Your task to perform on an android device: Show the shopping cart on ebay. Search for macbook on ebay, select the first entry, and add it to the cart. Image 0: 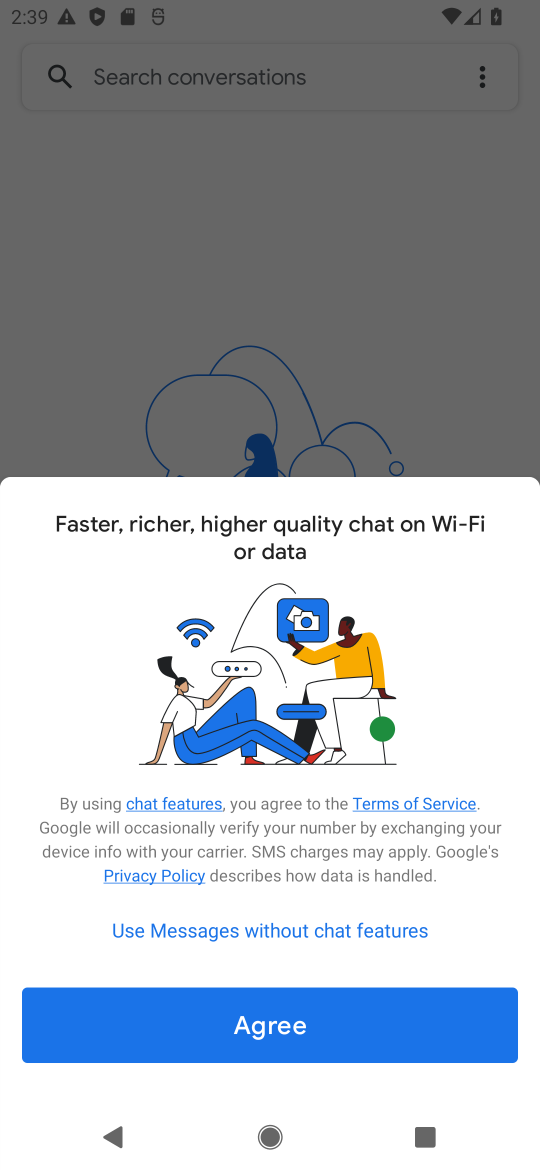
Step 0: press home button
Your task to perform on an android device: Show the shopping cart on ebay. Search for macbook on ebay, select the first entry, and add it to the cart. Image 1: 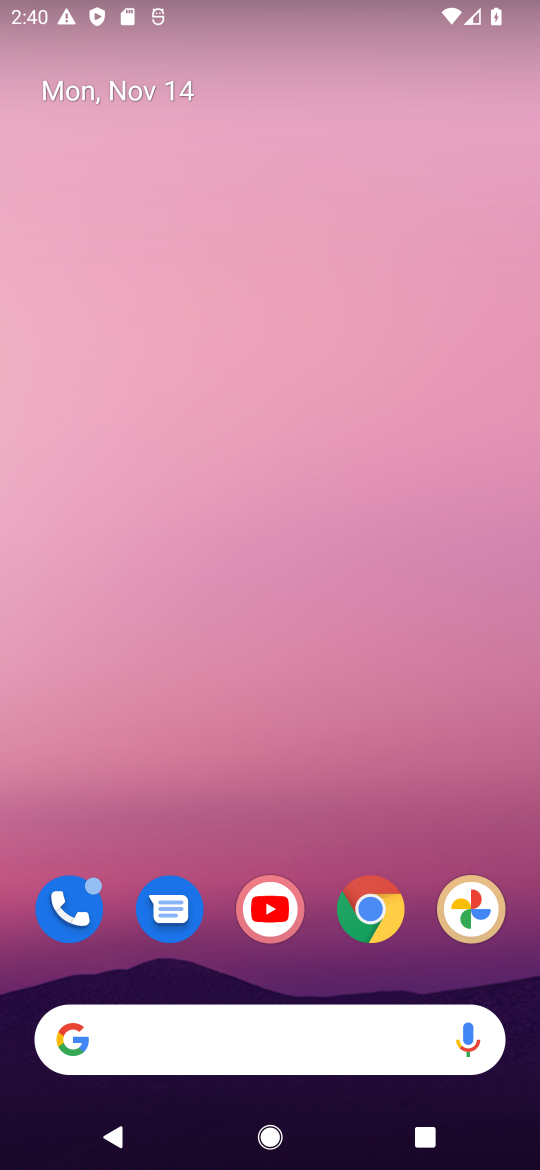
Step 1: drag from (356, 985) to (224, 108)
Your task to perform on an android device: Show the shopping cart on ebay. Search for macbook on ebay, select the first entry, and add it to the cart. Image 2: 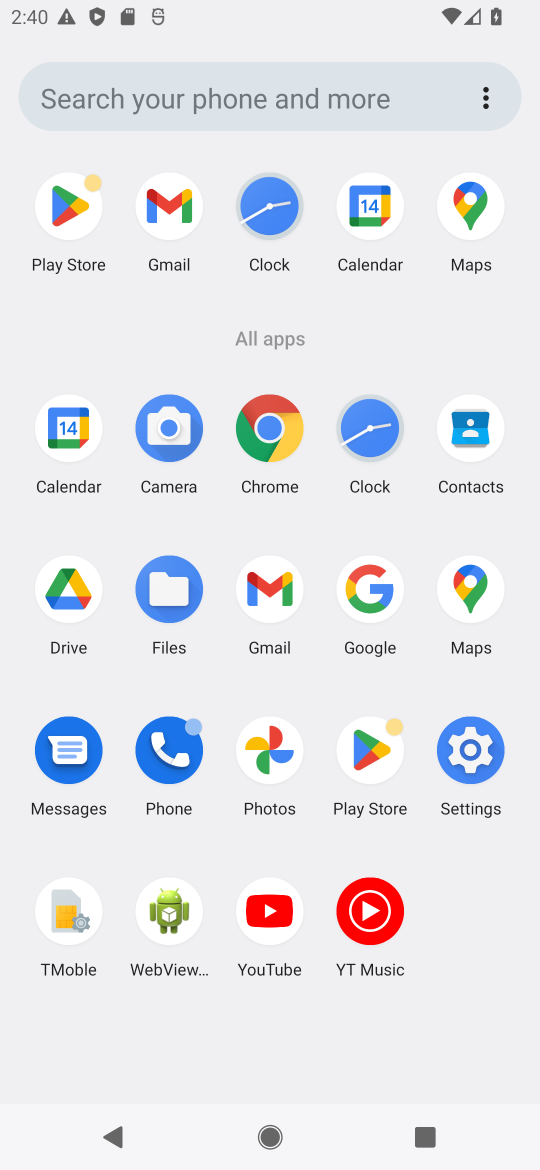
Step 2: click (271, 433)
Your task to perform on an android device: Show the shopping cart on ebay. Search for macbook on ebay, select the first entry, and add it to the cart. Image 3: 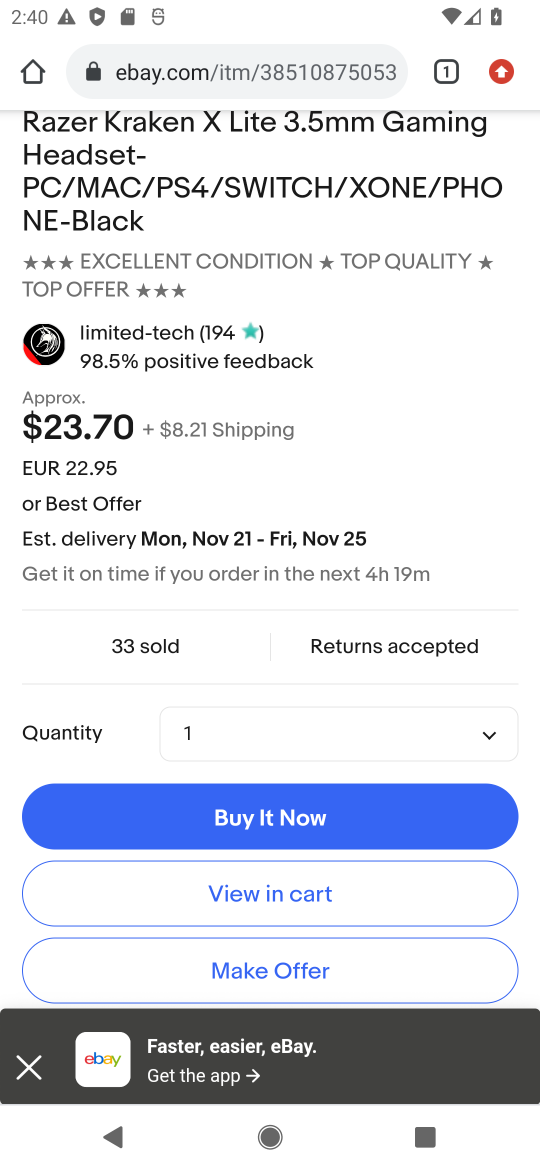
Step 3: click (214, 69)
Your task to perform on an android device: Show the shopping cart on ebay. Search for macbook on ebay, select the first entry, and add it to the cart. Image 4: 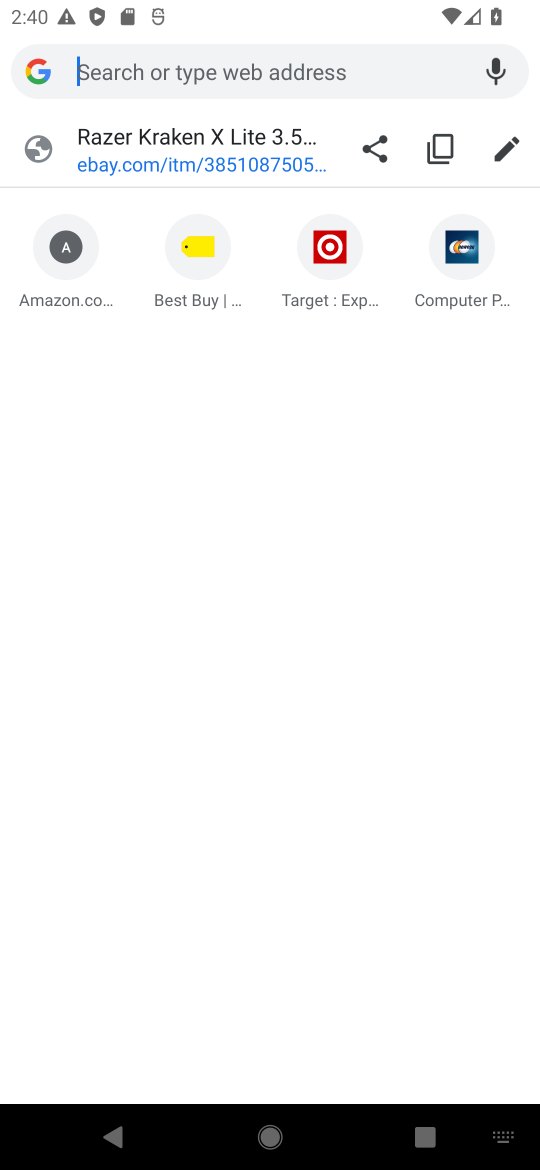
Step 4: type "ebay.com"
Your task to perform on an android device: Show the shopping cart on ebay. Search for macbook on ebay, select the first entry, and add it to the cart. Image 5: 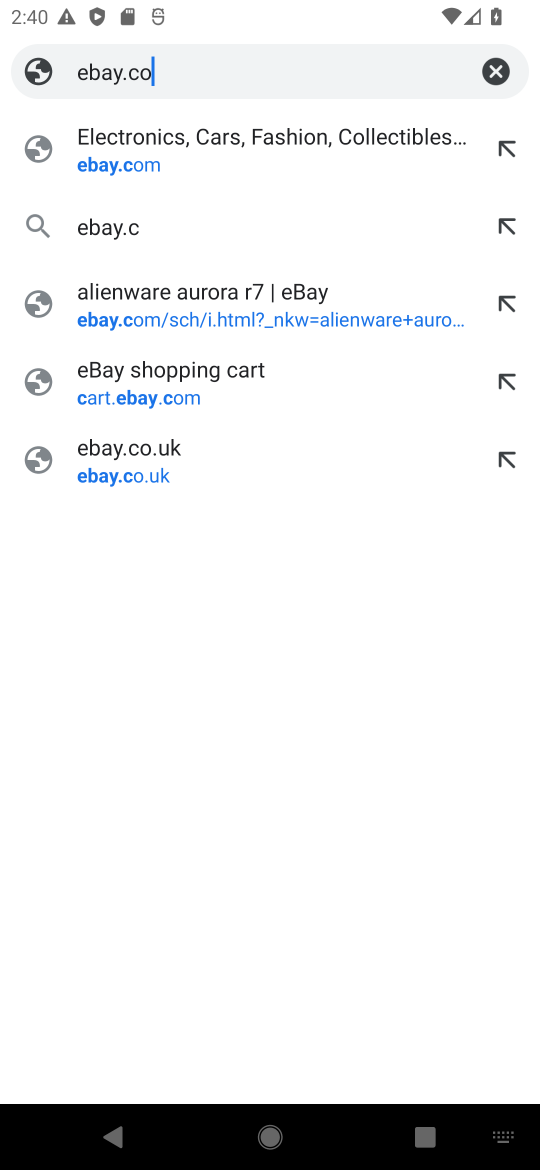
Step 5: press enter
Your task to perform on an android device: Show the shopping cart on ebay. Search for macbook on ebay, select the first entry, and add it to the cart. Image 6: 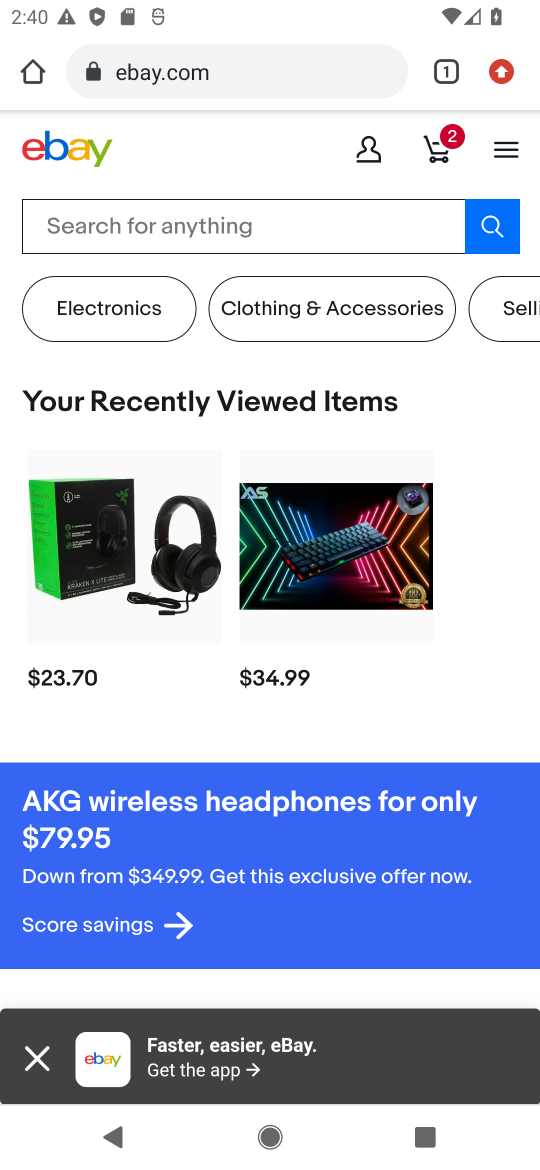
Step 6: click (457, 129)
Your task to perform on an android device: Show the shopping cart on ebay. Search for macbook on ebay, select the first entry, and add it to the cart. Image 7: 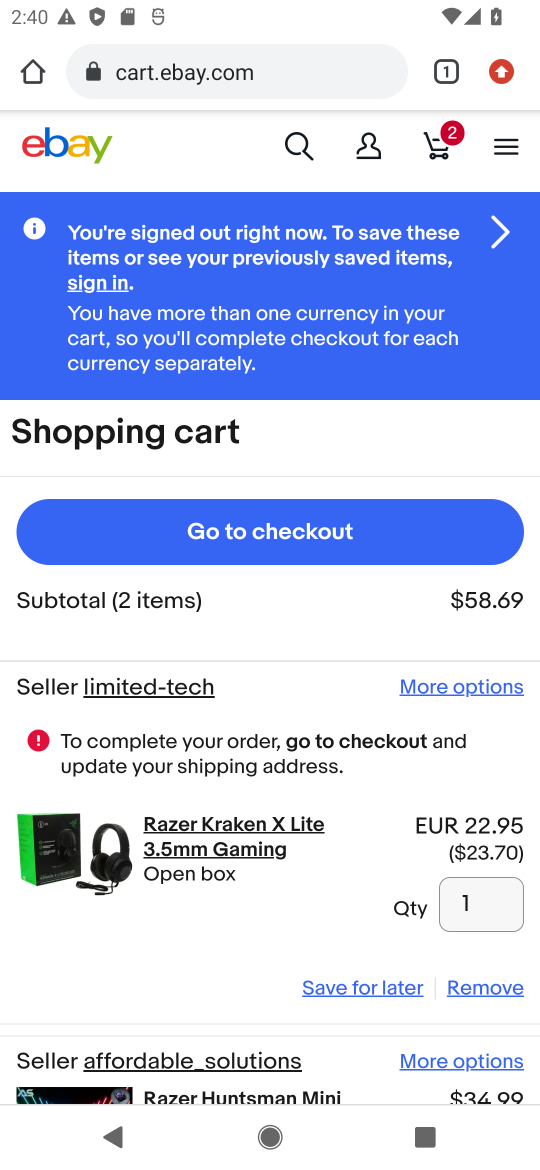
Step 7: click (304, 143)
Your task to perform on an android device: Show the shopping cart on ebay. Search for macbook on ebay, select the first entry, and add it to the cart. Image 8: 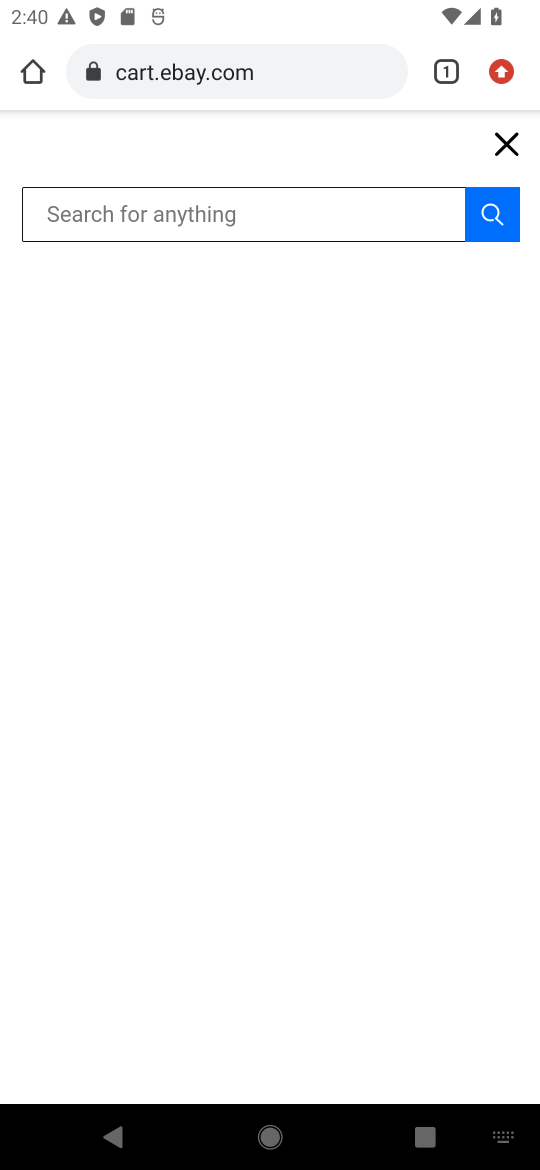
Step 8: type "macbook"
Your task to perform on an android device: Show the shopping cart on ebay. Search for macbook on ebay, select the first entry, and add it to the cart. Image 9: 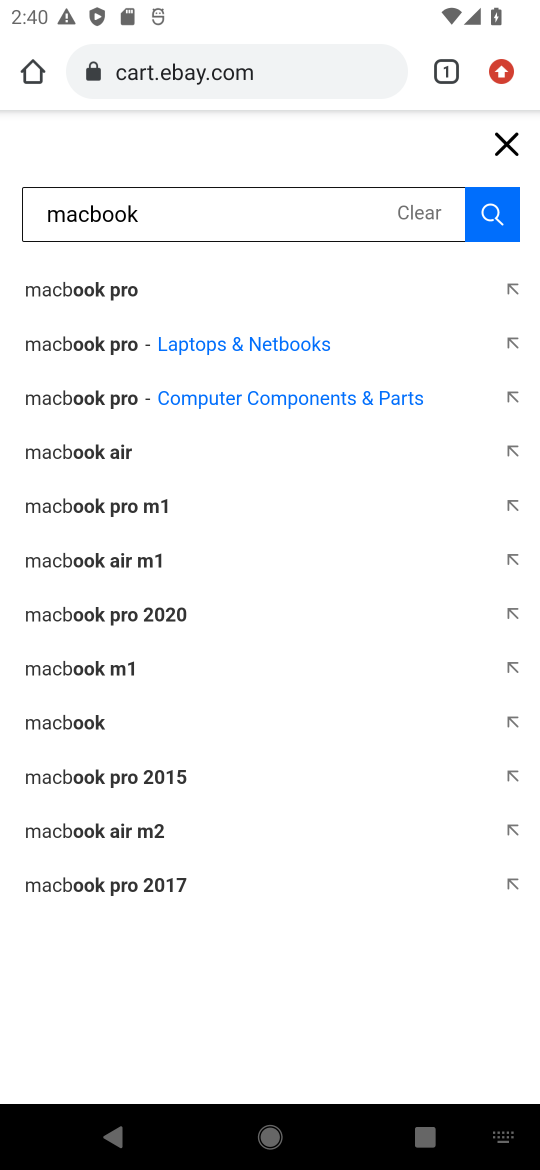
Step 9: click (481, 215)
Your task to perform on an android device: Show the shopping cart on ebay. Search for macbook on ebay, select the first entry, and add it to the cart. Image 10: 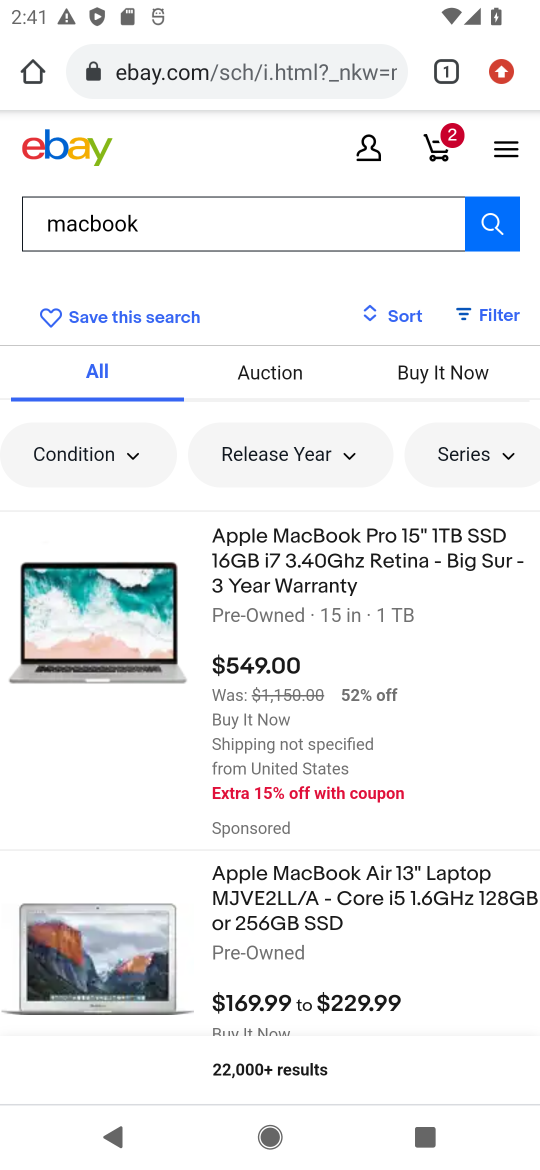
Step 10: click (377, 543)
Your task to perform on an android device: Show the shopping cart on ebay. Search for macbook on ebay, select the first entry, and add it to the cart. Image 11: 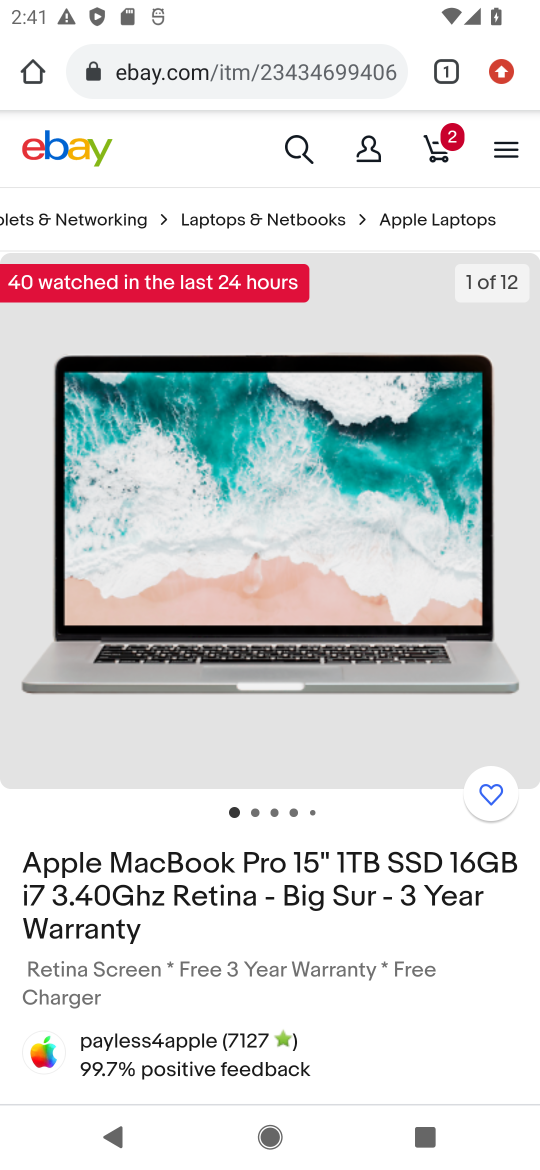
Step 11: drag from (386, 907) to (428, 225)
Your task to perform on an android device: Show the shopping cart on ebay. Search for macbook on ebay, select the first entry, and add it to the cart. Image 12: 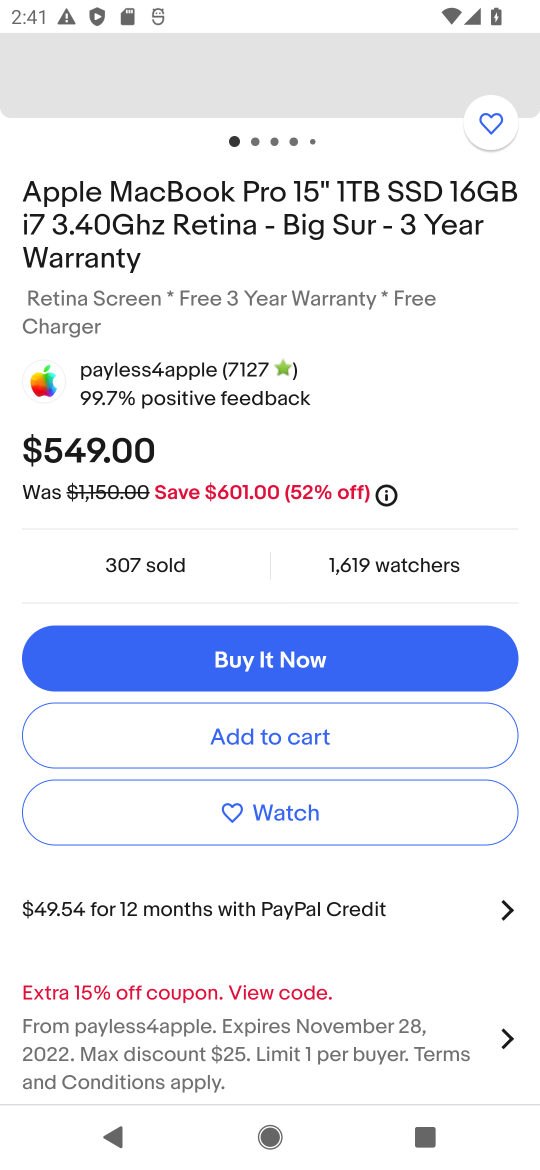
Step 12: click (213, 729)
Your task to perform on an android device: Show the shopping cart on ebay. Search for macbook on ebay, select the first entry, and add it to the cart. Image 13: 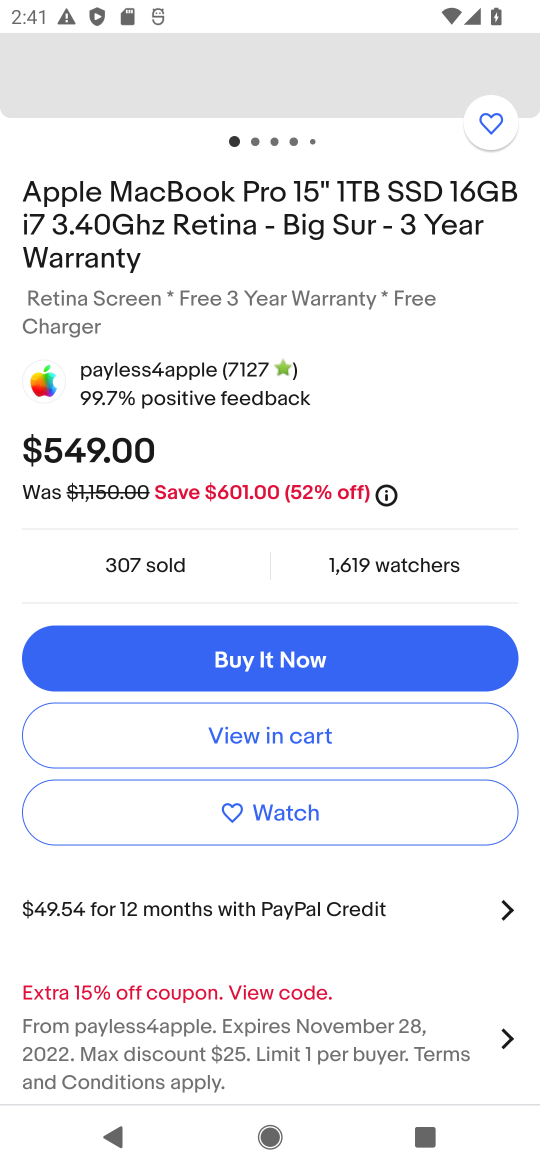
Step 13: task complete